Your task to perform on an android device: turn off notifications settings in the gmail app Image 0: 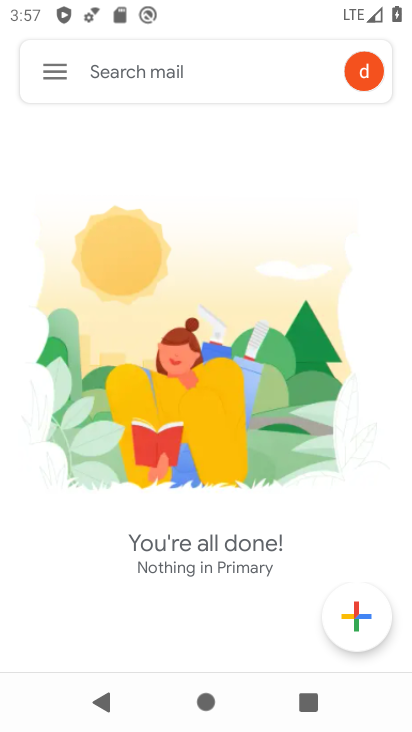
Step 0: press home button
Your task to perform on an android device: turn off notifications settings in the gmail app Image 1: 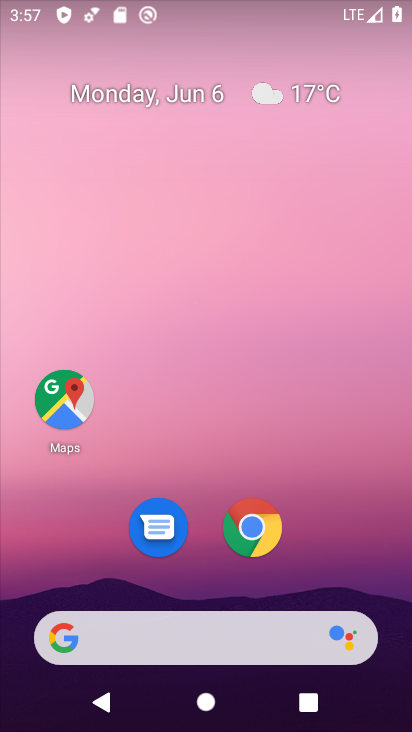
Step 1: drag from (349, 435) to (304, 2)
Your task to perform on an android device: turn off notifications settings in the gmail app Image 2: 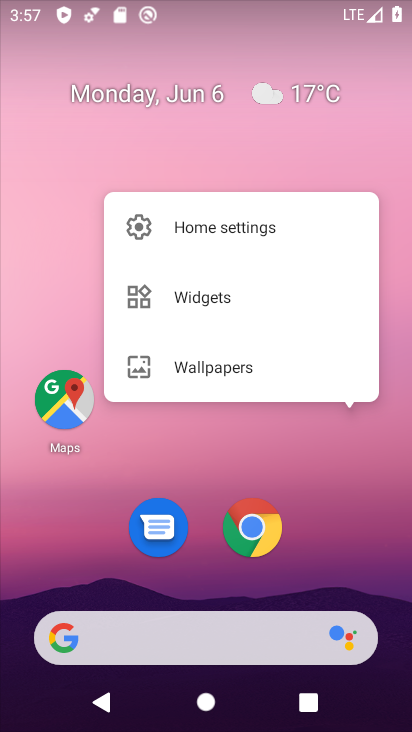
Step 2: click (376, 442)
Your task to perform on an android device: turn off notifications settings in the gmail app Image 3: 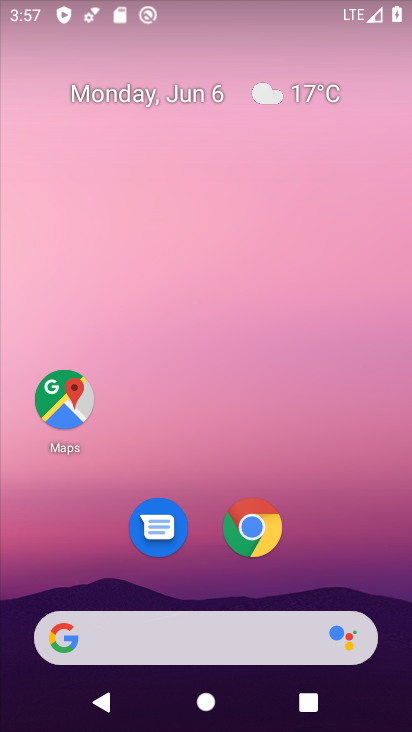
Step 3: click (376, 442)
Your task to perform on an android device: turn off notifications settings in the gmail app Image 4: 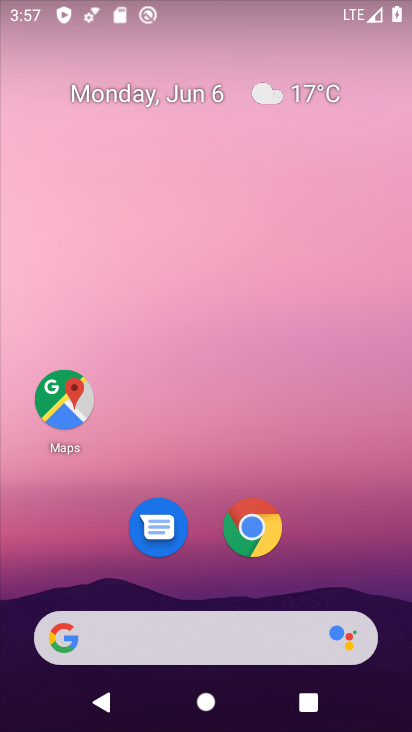
Step 4: click (370, 493)
Your task to perform on an android device: turn off notifications settings in the gmail app Image 5: 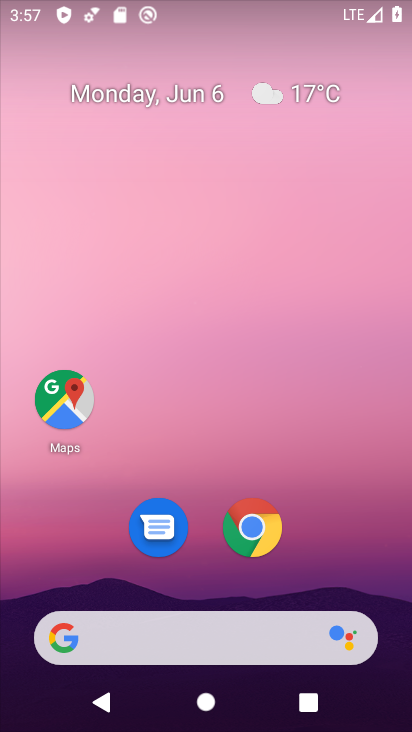
Step 5: drag from (354, 527) to (306, 166)
Your task to perform on an android device: turn off notifications settings in the gmail app Image 6: 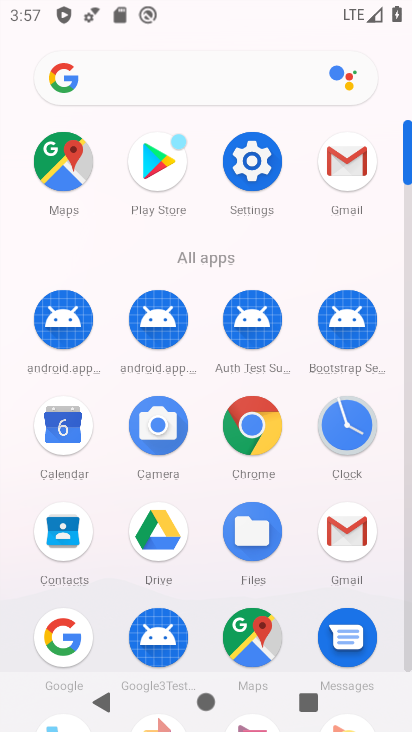
Step 6: click (344, 179)
Your task to perform on an android device: turn off notifications settings in the gmail app Image 7: 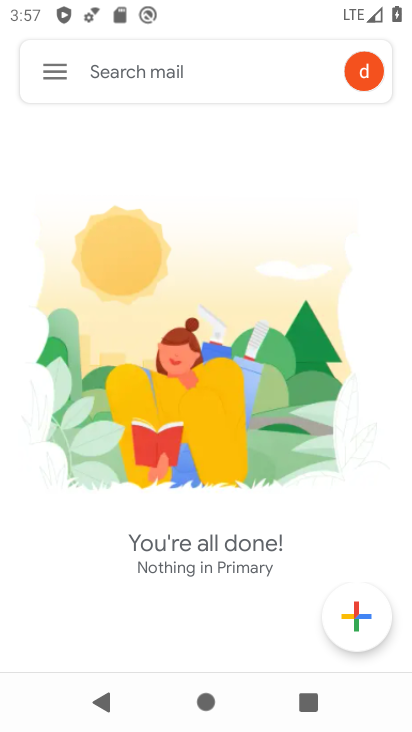
Step 7: click (56, 60)
Your task to perform on an android device: turn off notifications settings in the gmail app Image 8: 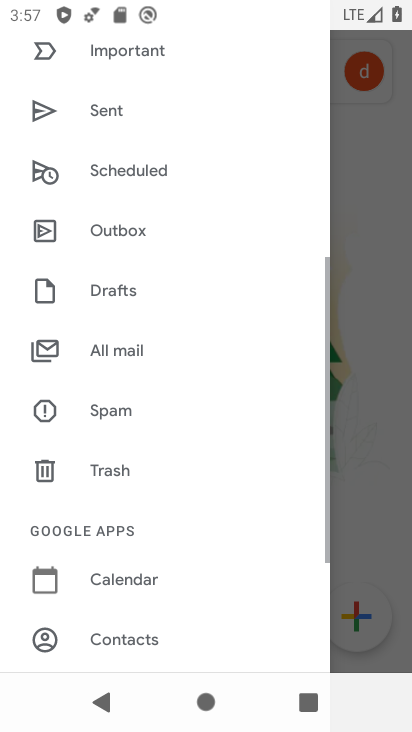
Step 8: click (56, 60)
Your task to perform on an android device: turn off notifications settings in the gmail app Image 9: 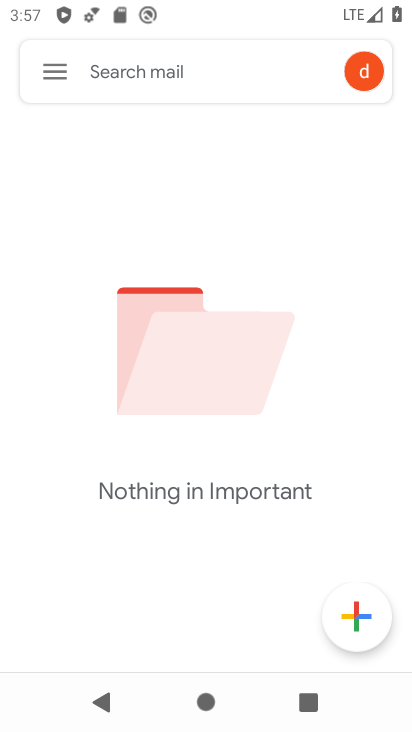
Step 9: click (44, 70)
Your task to perform on an android device: turn off notifications settings in the gmail app Image 10: 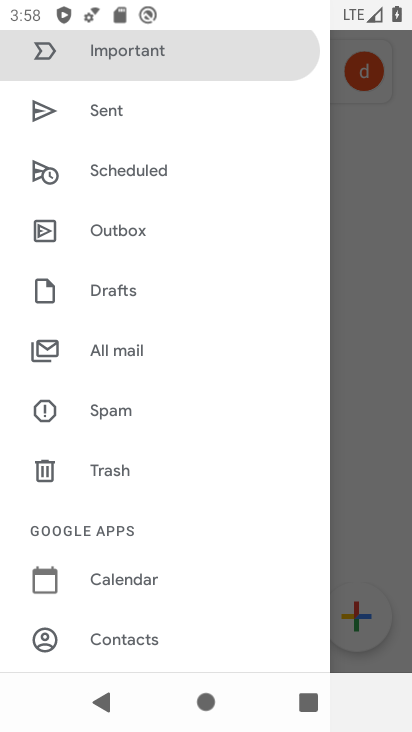
Step 10: drag from (235, 576) to (248, 260)
Your task to perform on an android device: turn off notifications settings in the gmail app Image 11: 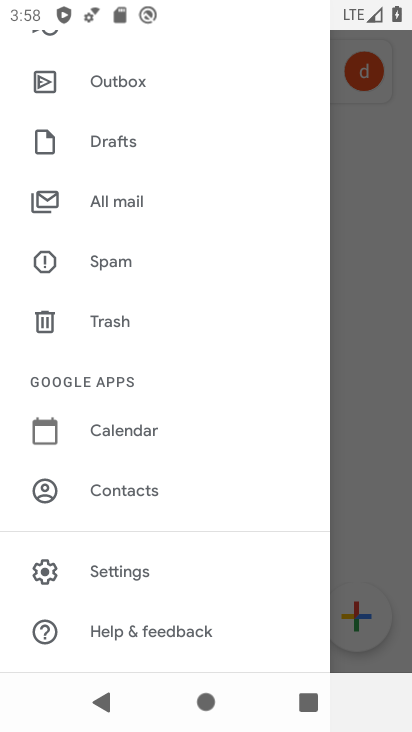
Step 11: click (103, 563)
Your task to perform on an android device: turn off notifications settings in the gmail app Image 12: 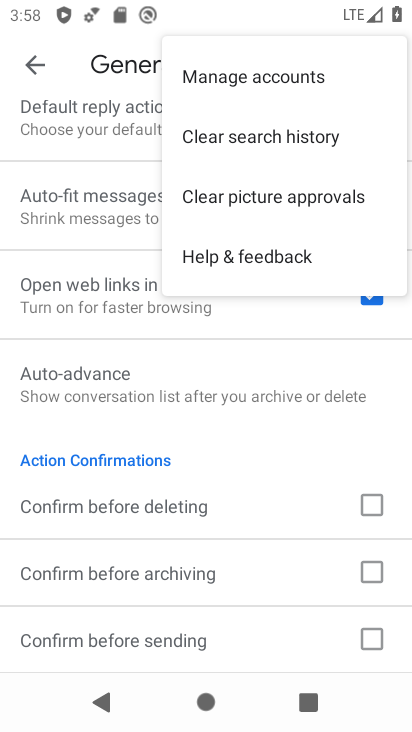
Step 12: click (30, 377)
Your task to perform on an android device: turn off notifications settings in the gmail app Image 13: 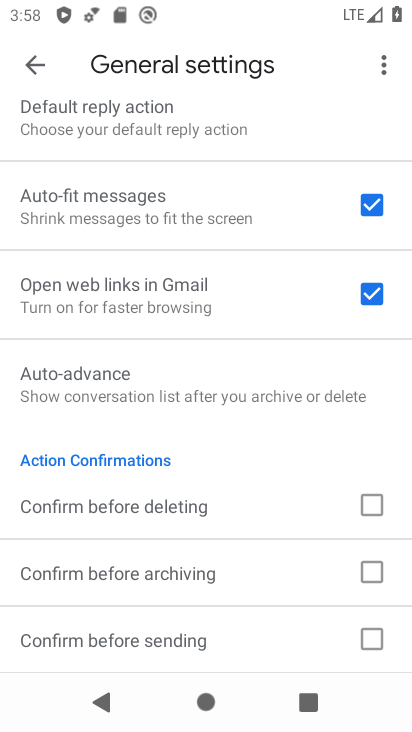
Step 13: drag from (228, 106) to (213, 459)
Your task to perform on an android device: turn off notifications settings in the gmail app Image 14: 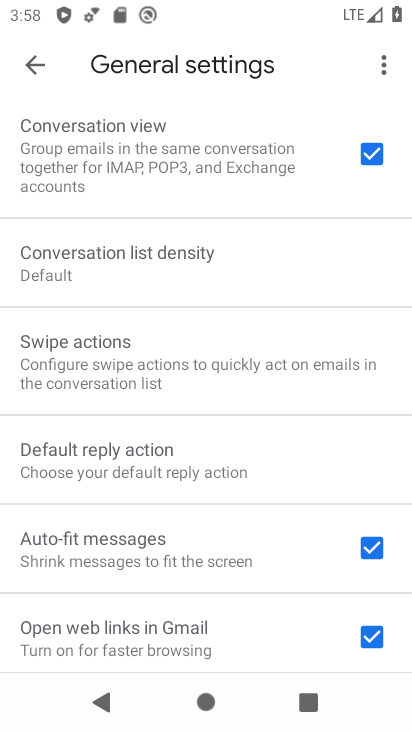
Step 14: drag from (152, 156) to (116, 552)
Your task to perform on an android device: turn off notifications settings in the gmail app Image 15: 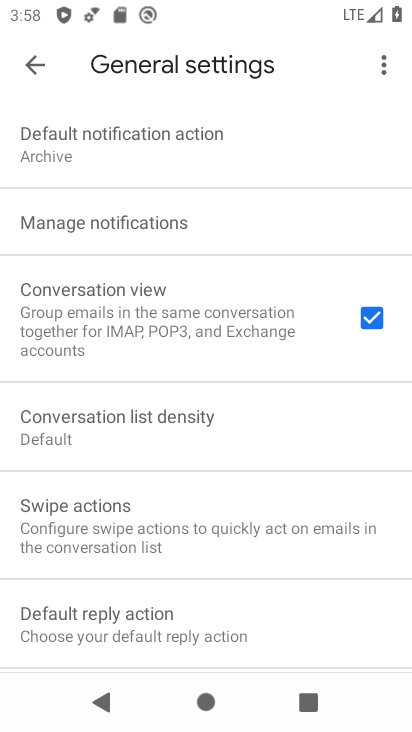
Step 15: click (158, 228)
Your task to perform on an android device: turn off notifications settings in the gmail app Image 16: 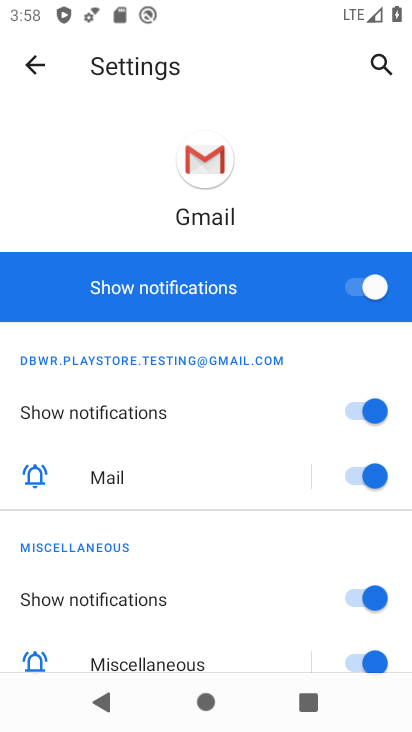
Step 16: click (361, 295)
Your task to perform on an android device: turn off notifications settings in the gmail app Image 17: 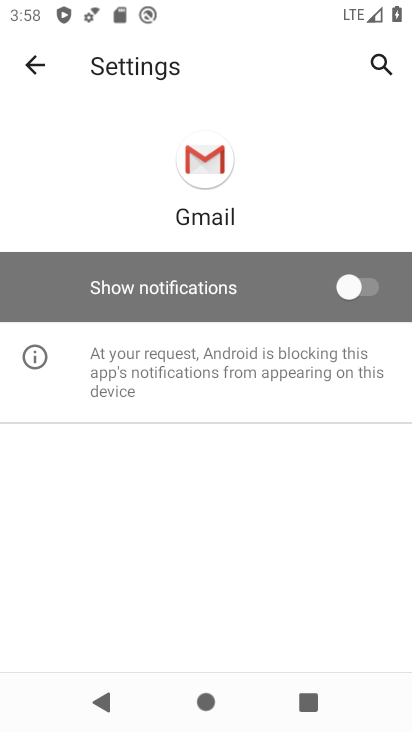
Step 17: task complete